Your task to perform on an android device: What's on my calendar today? Image 0: 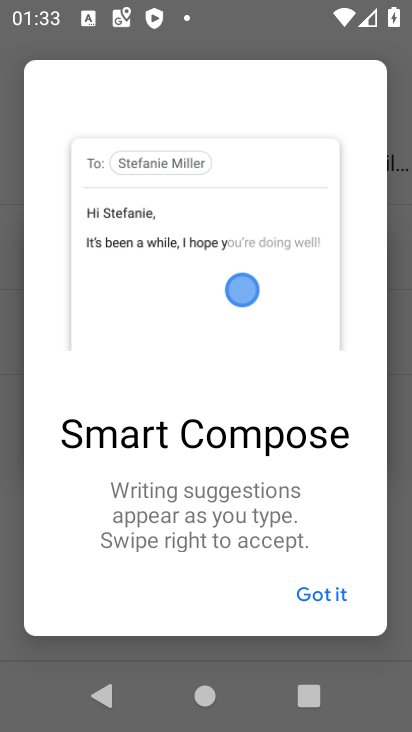
Step 0: press home button
Your task to perform on an android device: What's on my calendar today? Image 1: 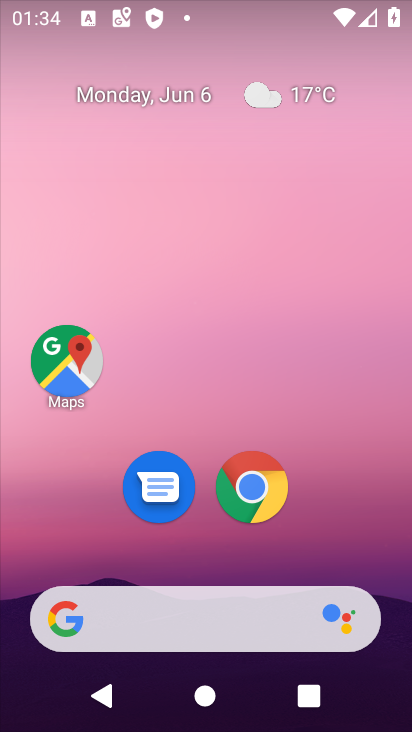
Step 1: drag from (399, 598) to (339, 75)
Your task to perform on an android device: What's on my calendar today? Image 2: 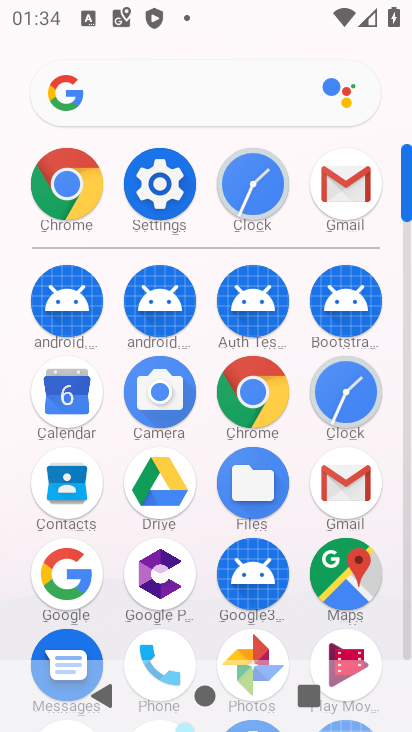
Step 2: click (67, 395)
Your task to perform on an android device: What's on my calendar today? Image 3: 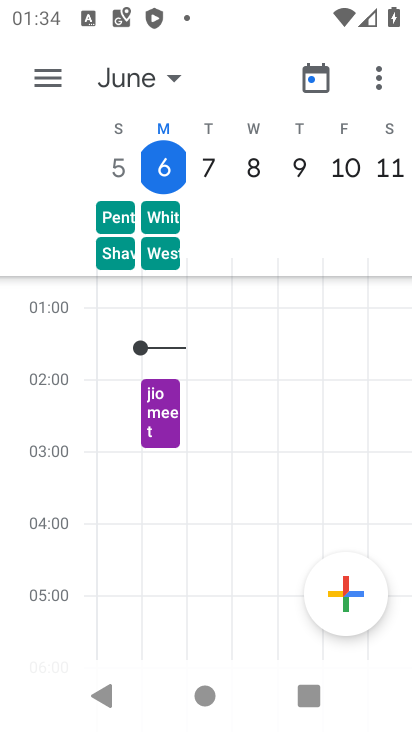
Step 3: click (47, 77)
Your task to perform on an android device: What's on my calendar today? Image 4: 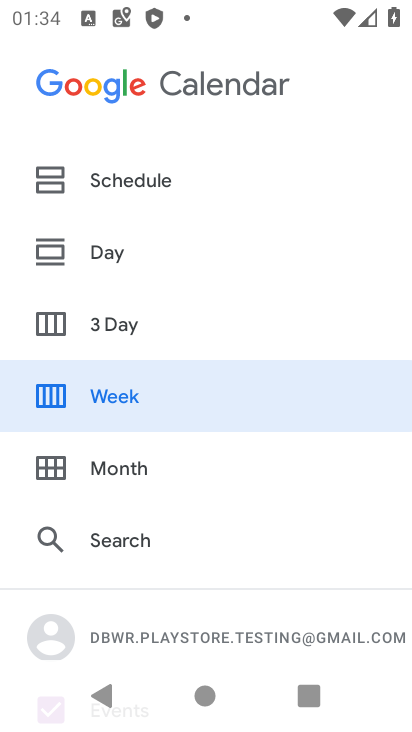
Step 4: click (106, 242)
Your task to perform on an android device: What's on my calendar today? Image 5: 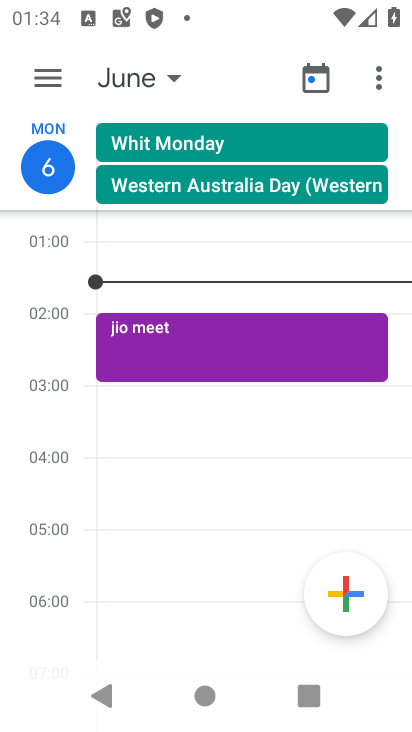
Step 5: task complete